Your task to perform on an android device: find photos in the google photos app Image 0: 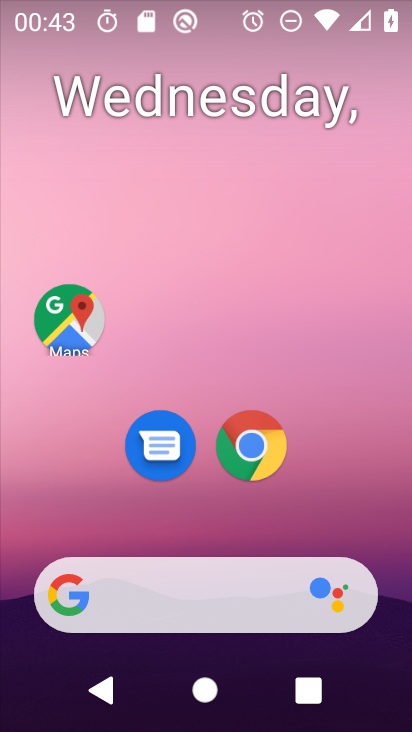
Step 0: drag from (281, 542) to (272, 29)
Your task to perform on an android device: find photos in the google photos app Image 1: 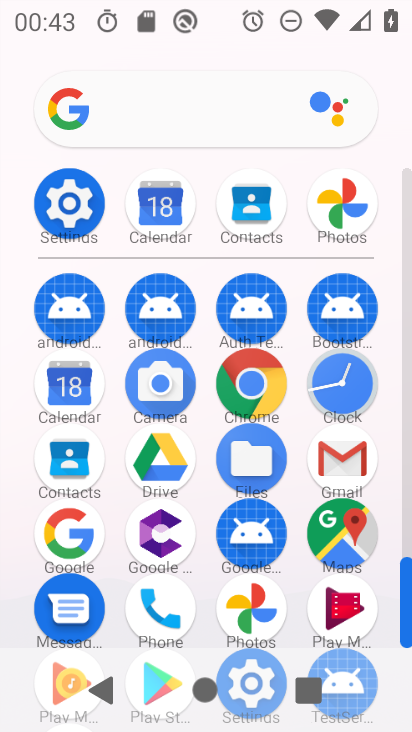
Step 1: click (340, 201)
Your task to perform on an android device: find photos in the google photos app Image 2: 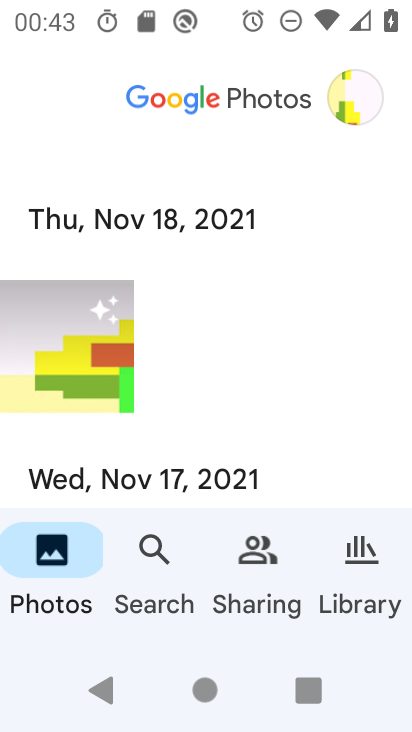
Step 2: task complete